Your task to perform on an android device: visit the assistant section in the google photos Image 0: 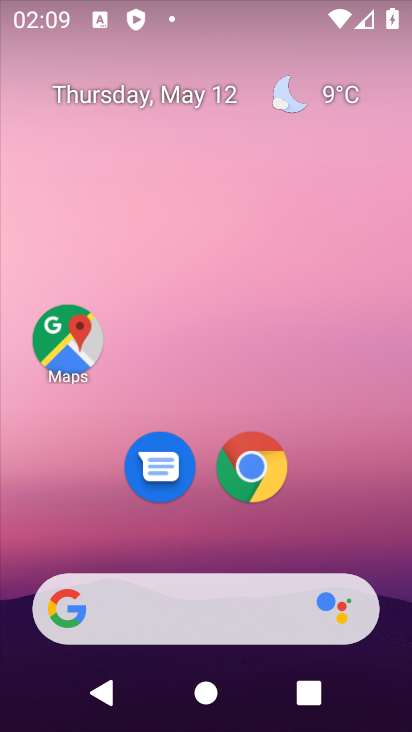
Step 0: drag from (292, 539) to (336, 156)
Your task to perform on an android device: visit the assistant section in the google photos Image 1: 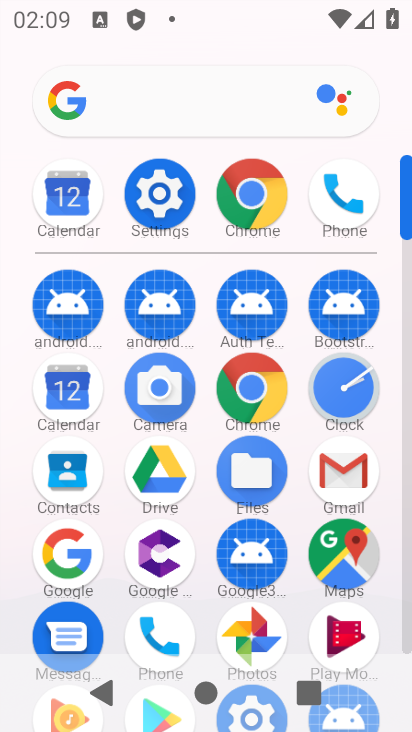
Step 1: click (246, 631)
Your task to perform on an android device: visit the assistant section in the google photos Image 2: 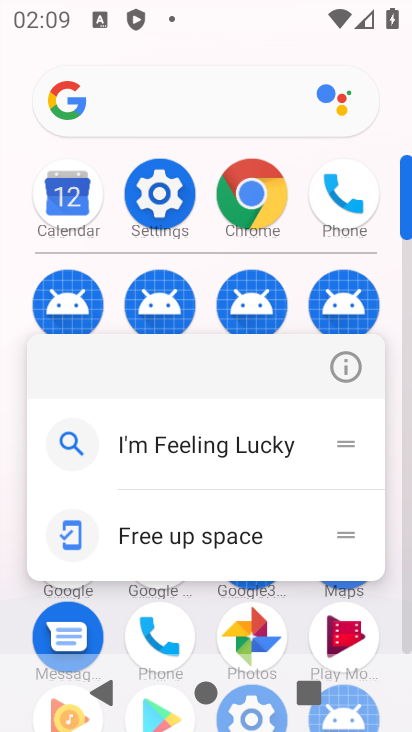
Step 2: click (230, 616)
Your task to perform on an android device: visit the assistant section in the google photos Image 3: 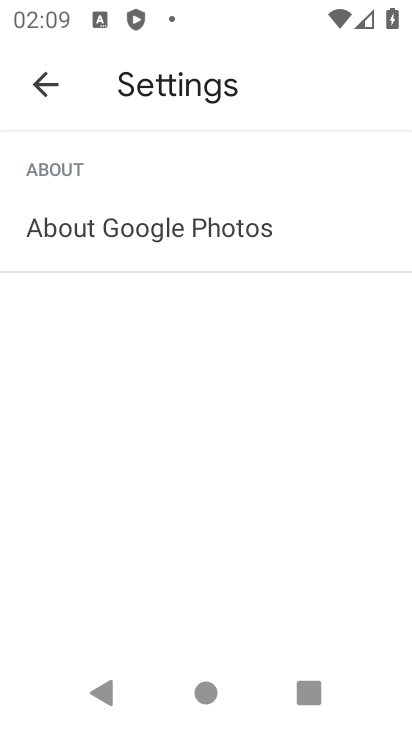
Step 3: click (25, 79)
Your task to perform on an android device: visit the assistant section in the google photos Image 4: 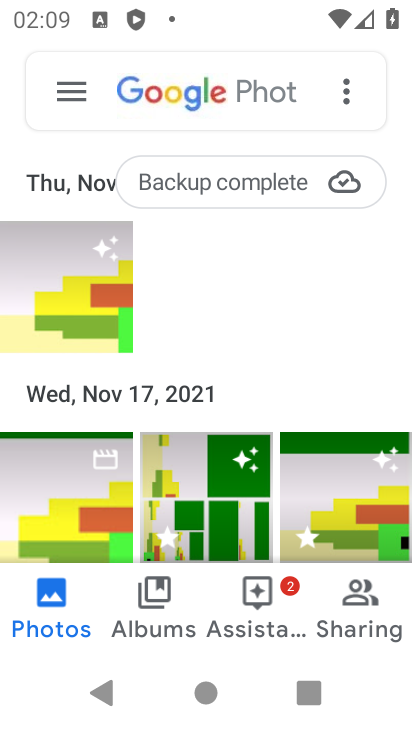
Step 4: click (245, 609)
Your task to perform on an android device: visit the assistant section in the google photos Image 5: 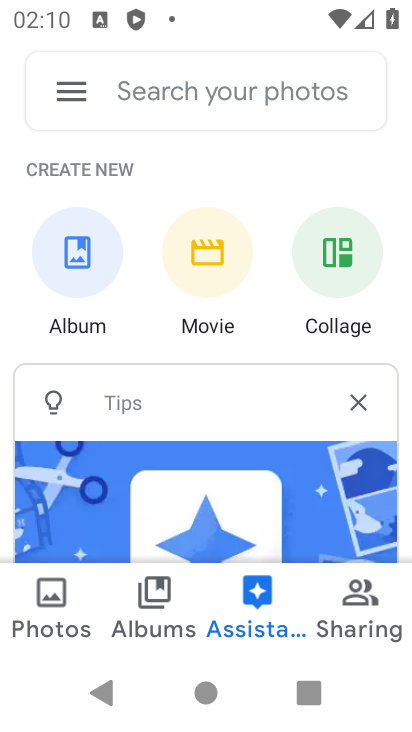
Step 5: task complete